Your task to perform on an android device: open device folders in google photos Image 0: 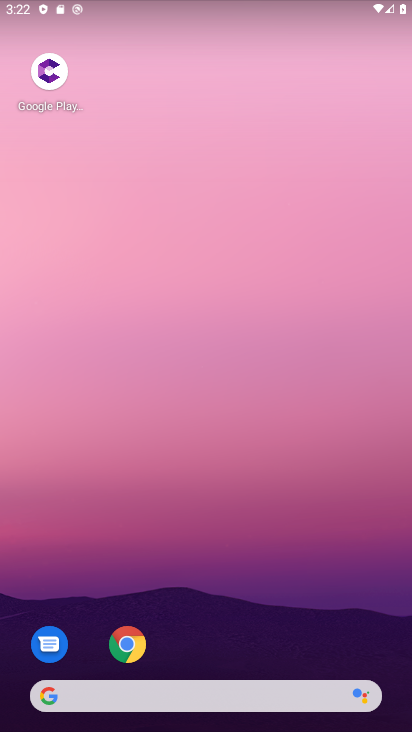
Step 0: drag from (153, 676) to (274, 167)
Your task to perform on an android device: open device folders in google photos Image 1: 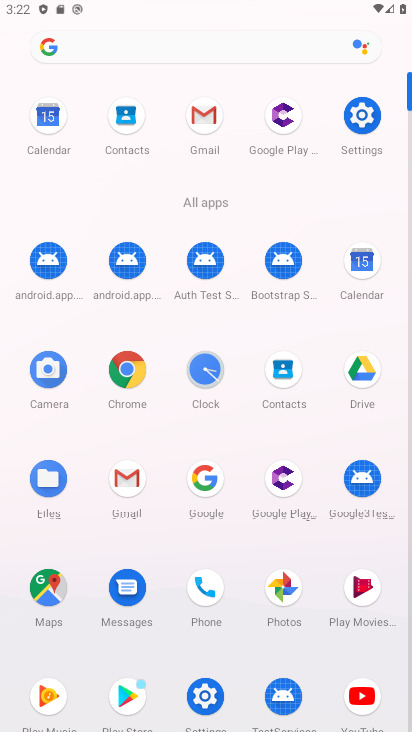
Step 1: click (282, 582)
Your task to perform on an android device: open device folders in google photos Image 2: 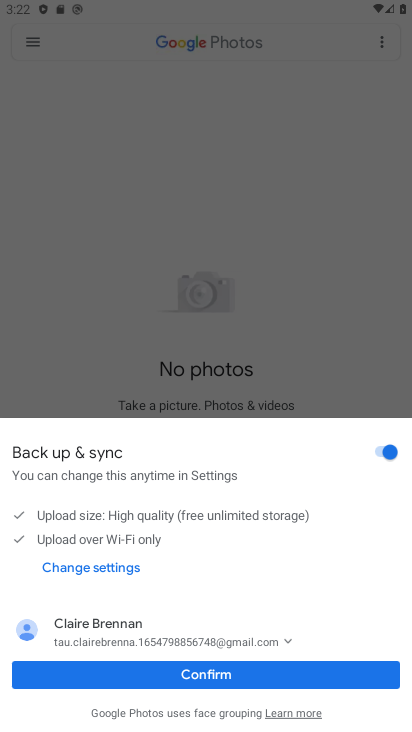
Step 2: click (229, 686)
Your task to perform on an android device: open device folders in google photos Image 3: 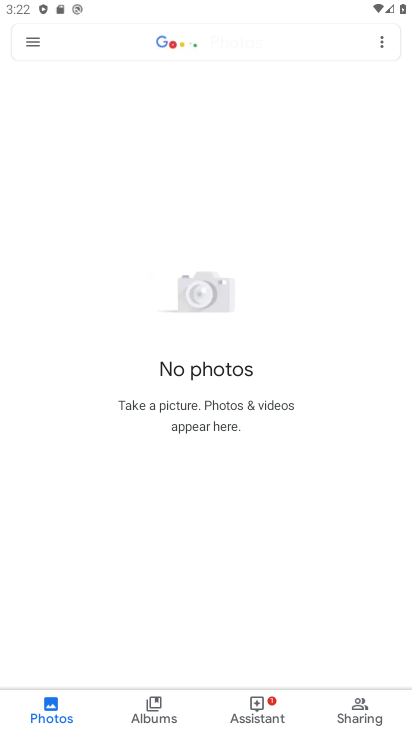
Step 3: click (46, 48)
Your task to perform on an android device: open device folders in google photos Image 4: 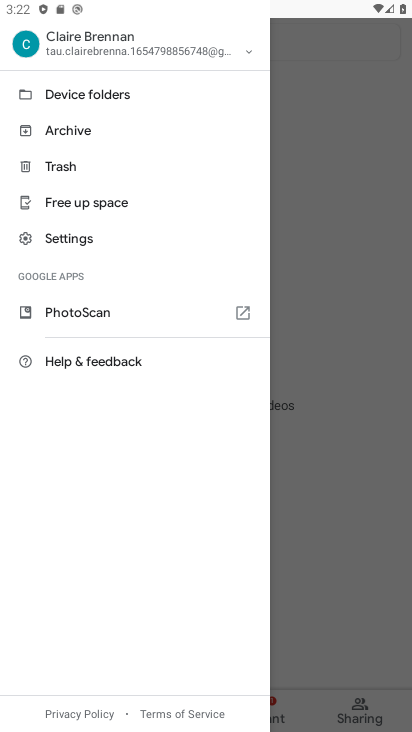
Step 4: click (109, 86)
Your task to perform on an android device: open device folders in google photos Image 5: 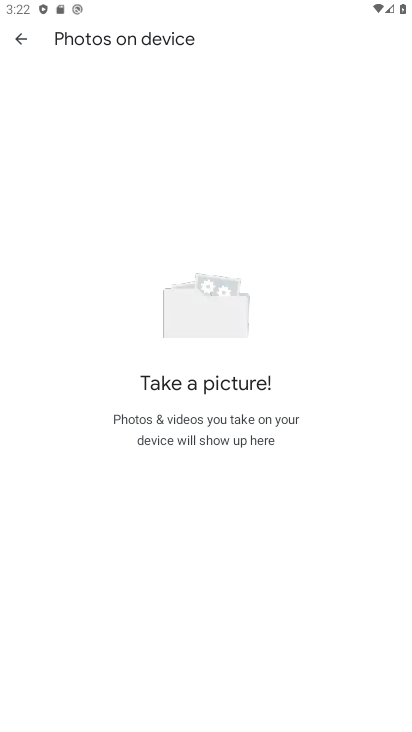
Step 5: task complete